Your task to perform on an android device: turn off priority inbox in the gmail app Image 0: 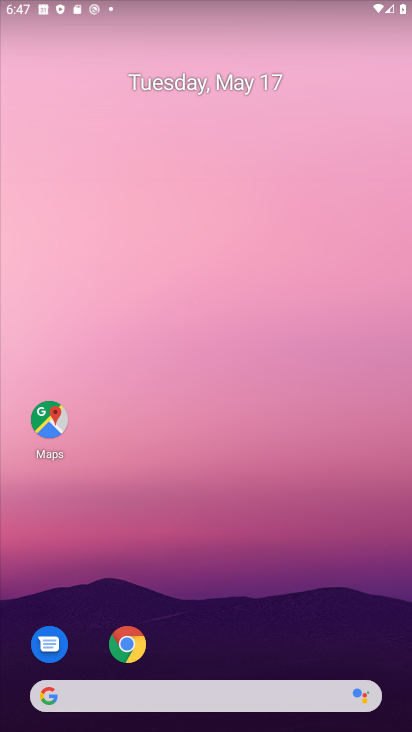
Step 0: drag from (320, 633) to (312, 208)
Your task to perform on an android device: turn off priority inbox in the gmail app Image 1: 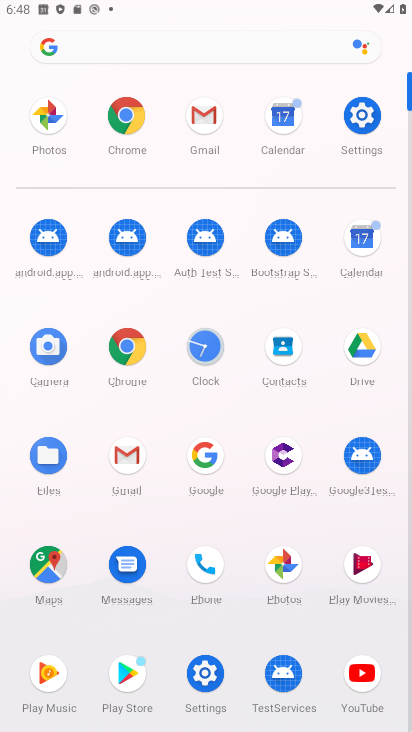
Step 1: click (123, 454)
Your task to perform on an android device: turn off priority inbox in the gmail app Image 2: 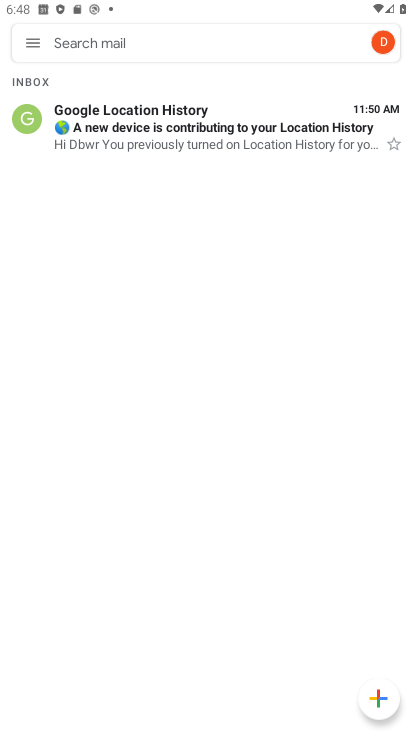
Step 2: click (31, 41)
Your task to perform on an android device: turn off priority inbox in the gmail app Image 3: 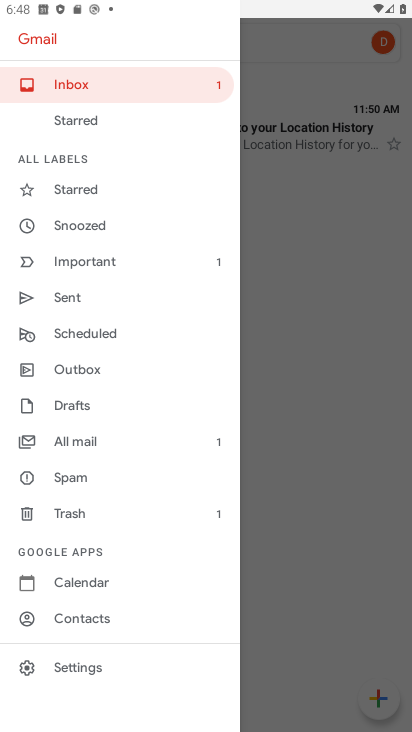
Step 3: click (113, 672)
Your task to perform on an android device: turn off priority inbox in the gmail app Image 4: 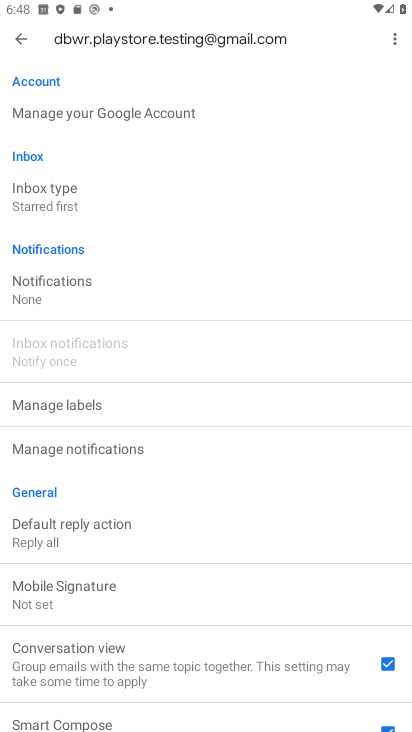
Step 4: click (129, 191)
Your task to perform on an android device: turn off priority inbox in the gmail app Image 5: 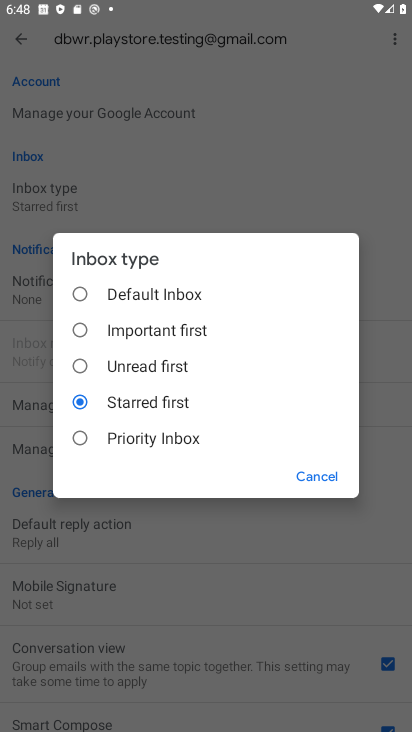
Step 5: task complete